Your task to perform on an android device: change the clock display to show seconds Image 0: 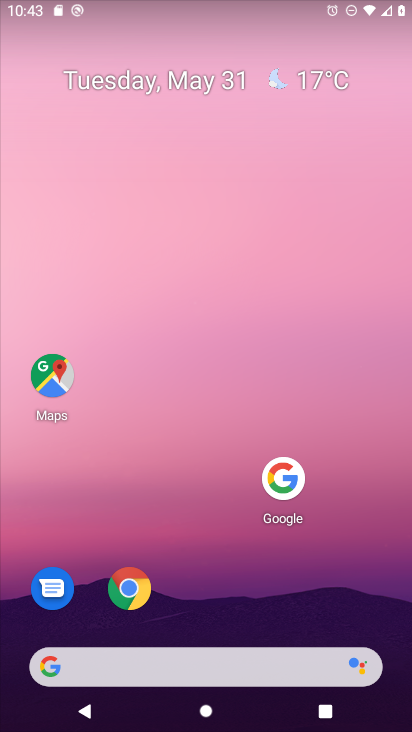
Step 0: drag from (227, 660) to (368, 85)
Your task to perform on an android device: change the clock display to show seconds Image 1: 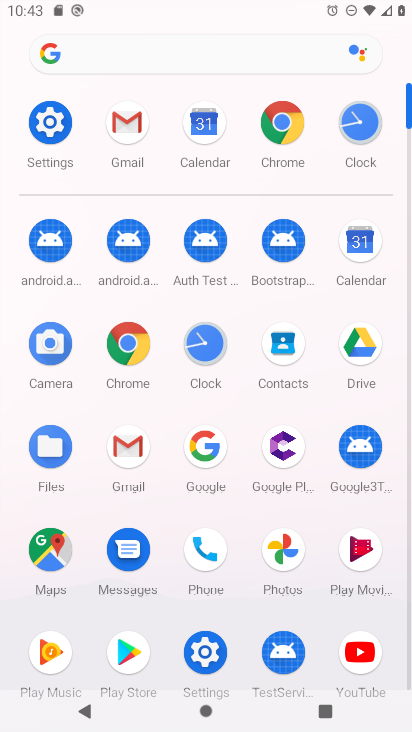
Step 1: click (208, 353)
Your task to perform on an android device: change the clock display to show seconds Image 2: 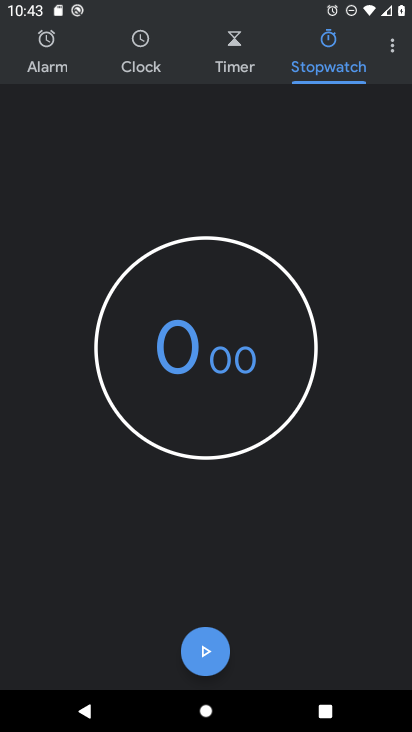
Step 2: click (393, 50)
Your task to perform on an android device: change the clock display to show seconds Image 3: 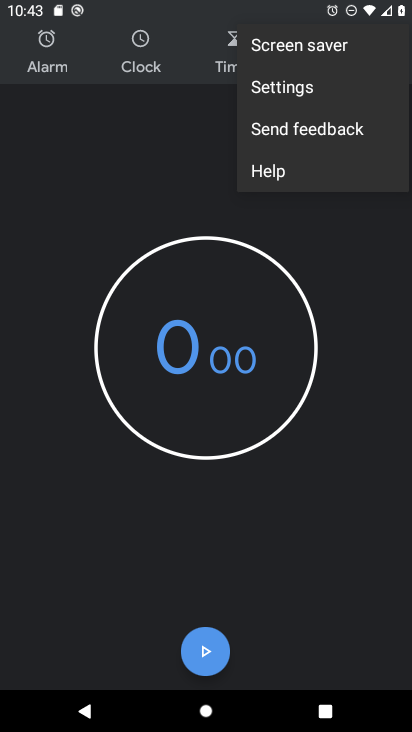
Step 3: click (304, 80)
Your task to perform on an android device: change the clock display to show seconds Image 4: 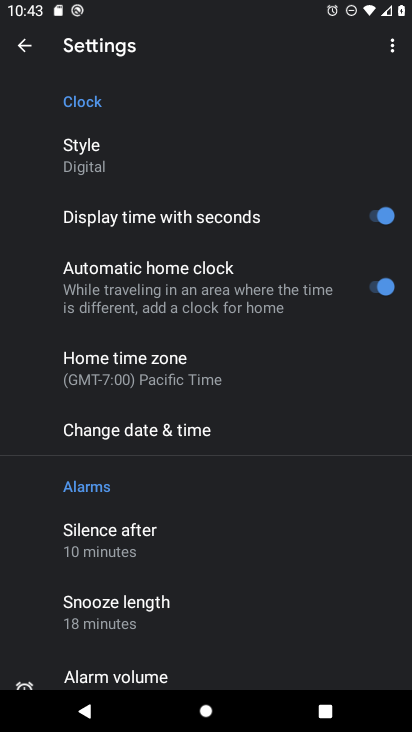
Step 4: task complete